Your task to perform on an android device: Open Maps and search for coffee Image 0: 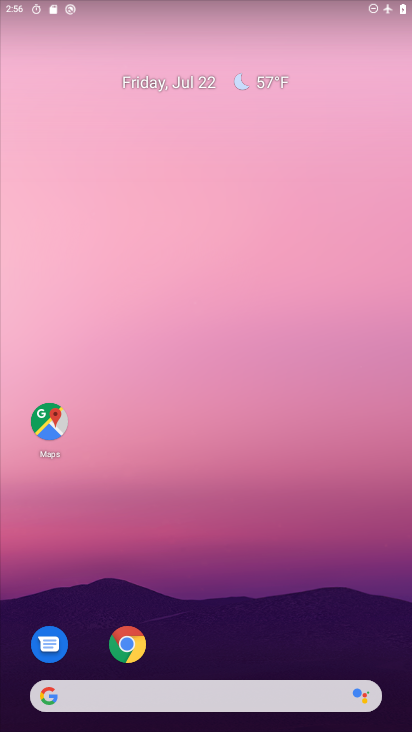
Step 0: click (58, 420)
Your task to perform on an android device: Open Maps and search for coffee Image 1: 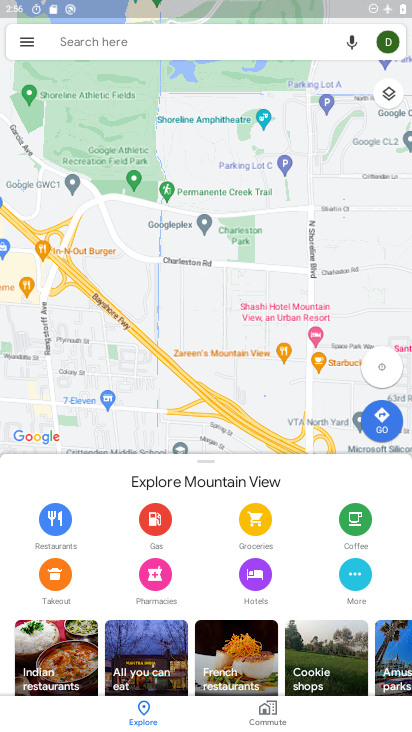
Step 1: click (126, 45)
Your task to perform on an android device: Open Maps and search for coffee Image 2: 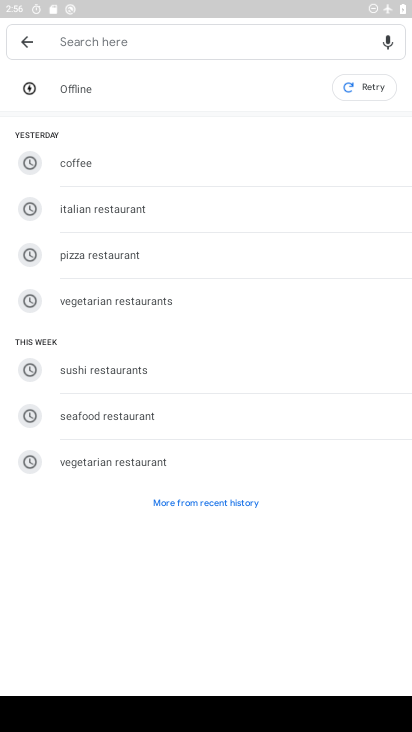
Step 2: click (117, 167)
Your task to perform on an android device: Open Maps and search for coffee Image 3: 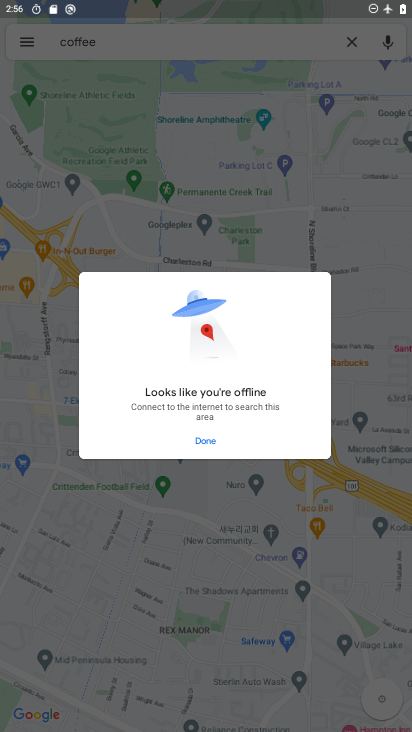
Step 3: task complete